Your task to perform on an android device: clear all cookies in the chrome app Image 0: 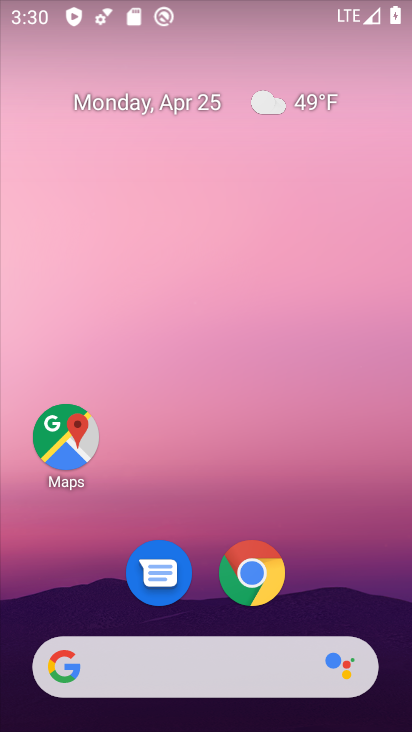
Step 0: click (256, 574)
Your task to perform on an android device: clear all cookies in the chrome app Image 1: 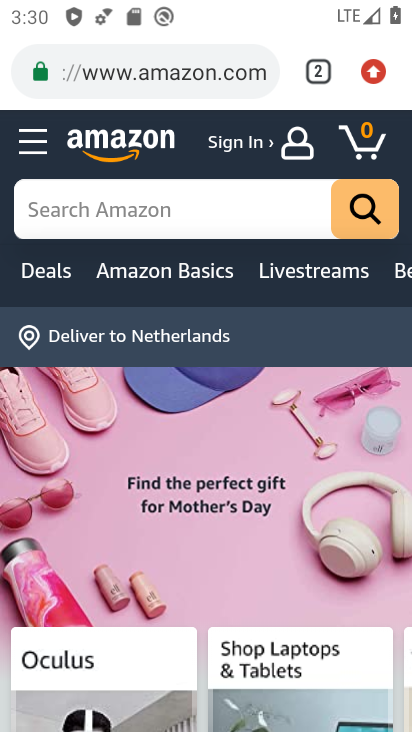
Step 1: click (381, 70)
Your task to perform on an android device: clear all cookies in the chrome app Image 2: 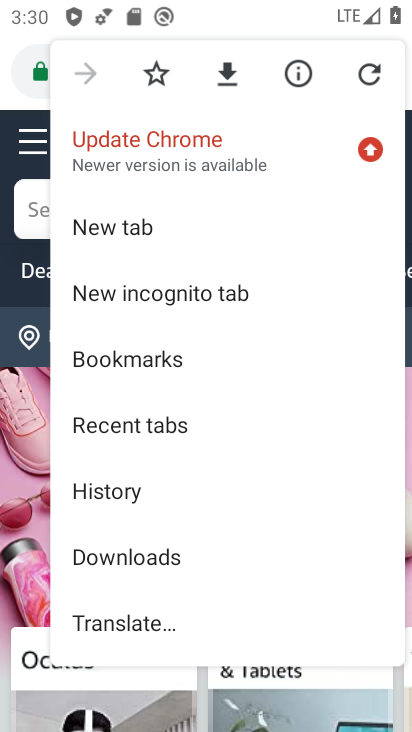
Step 2: drag from (227, 408) to (201, 298)
Your task to perform on an android device: clear all cookies in the chrome app Image 3: 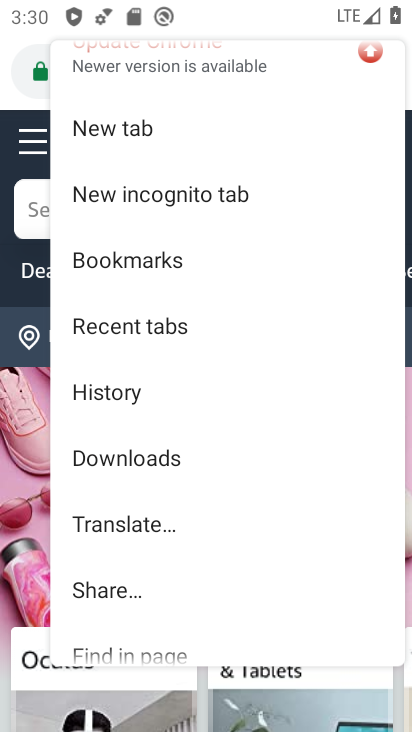
Step 3: drag from (164, 547) to (180, 230)
Your task to perform on an android device: clear all cookies in the chrome app Image 4: 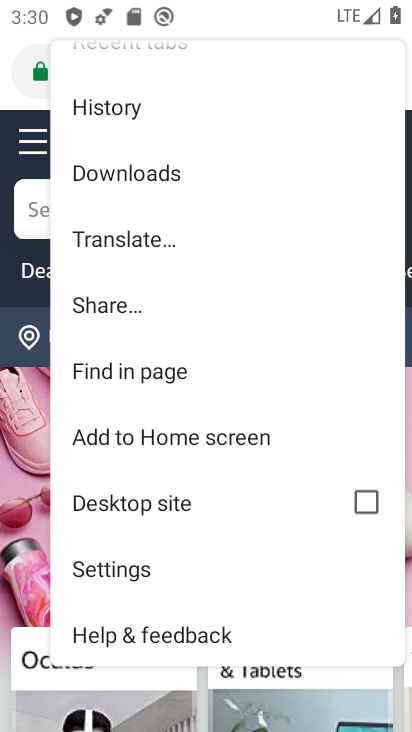
Step 4: click (161, 563)
Your task to perform on an android device: clear all cookies in the chrome app Image 5: 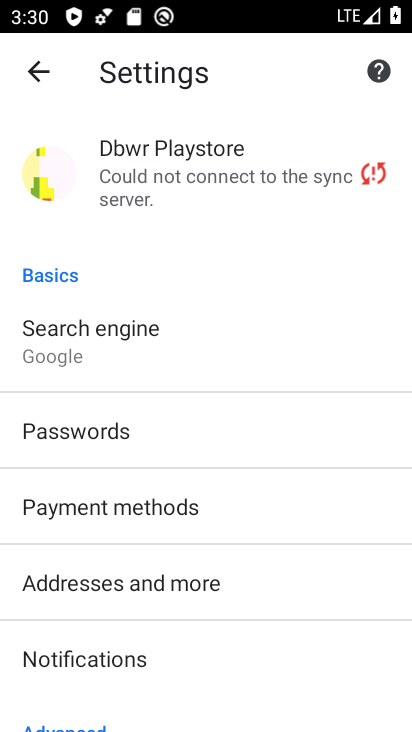
Step 5: drag from (211, 643) to (222, 199)
Your task to perform on an android device: clear all cookies in the chrome app Image 6: 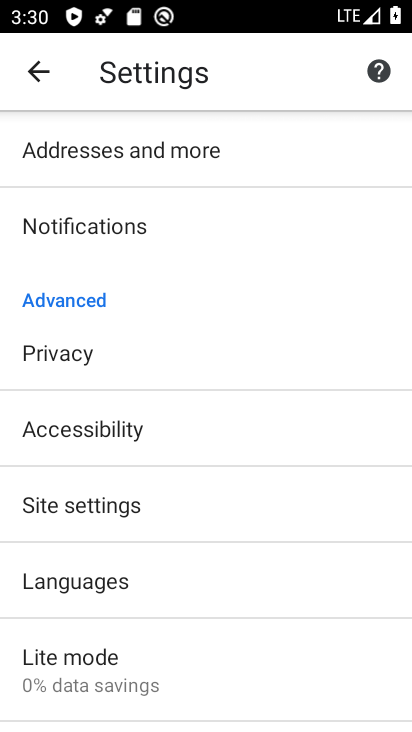
Step 6: drag from (234, 544) to (219, 329)
Your task to perform on an android device: clear all cookies in the chrome app Image 7: 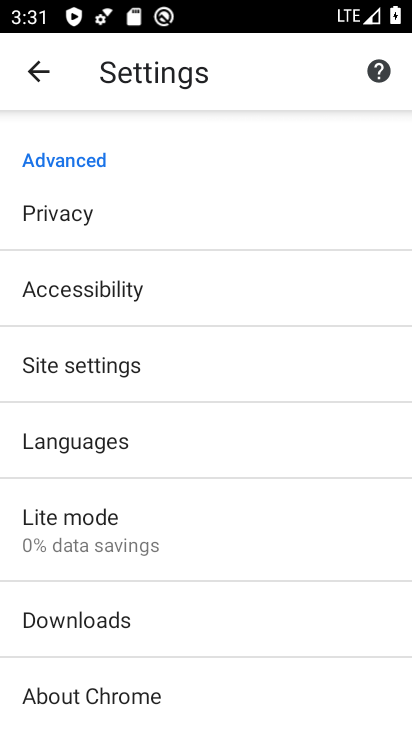
Step 7: drag from (221, 528) to (224, 218)
Your task to perform on an android device: clear all cookies in the chrome app Image 8: 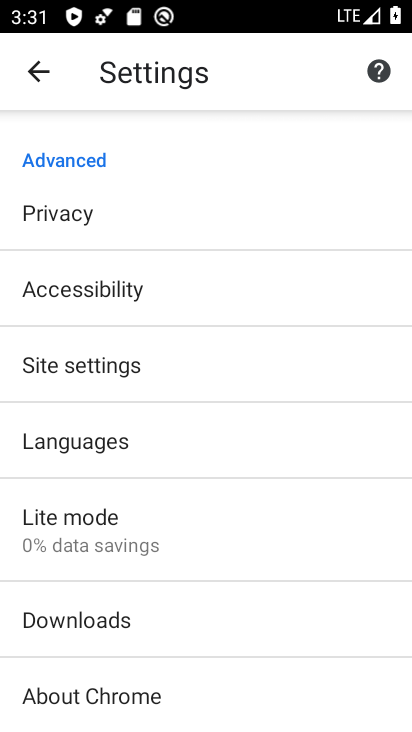
Step 8: click (102, 210)
Your task to perform on an android device: clear all cookies in the chrome app Image 9: 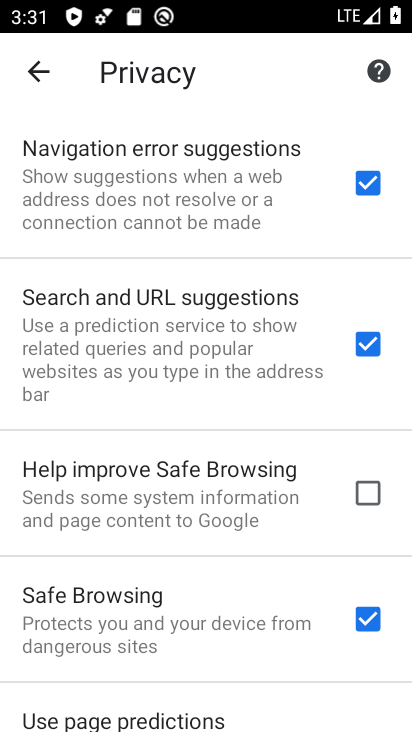
Step 9: drag from (244, 649) to (205, 238)
Your task to perform on an android device: clear all cookies in the chrome app Image 10: 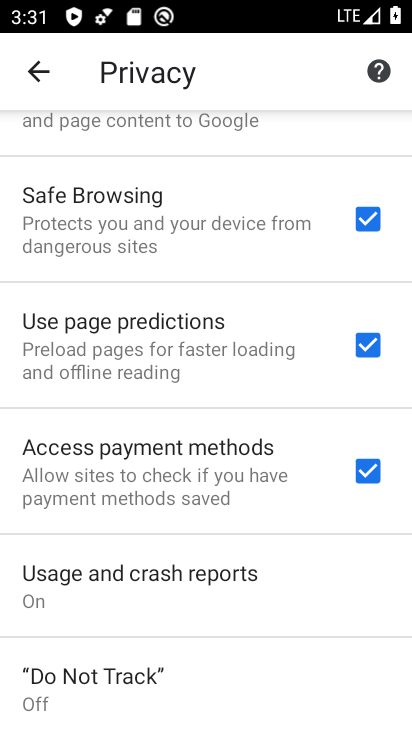
Step 10: drag from (224, 638) to (222, 203)
Your task to perform on an android device: clear all cookies in the chrome app Image 11: 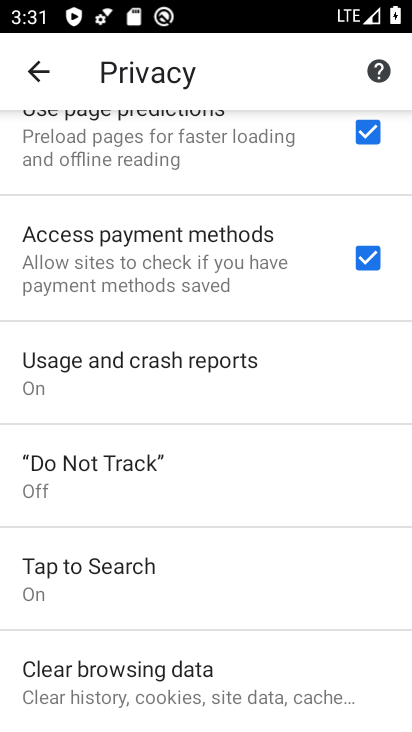
Step 11: drag from (204, 646) to (205, 97)
Your task to perform on an android device: clear all cookies in the chrome app Image 12: 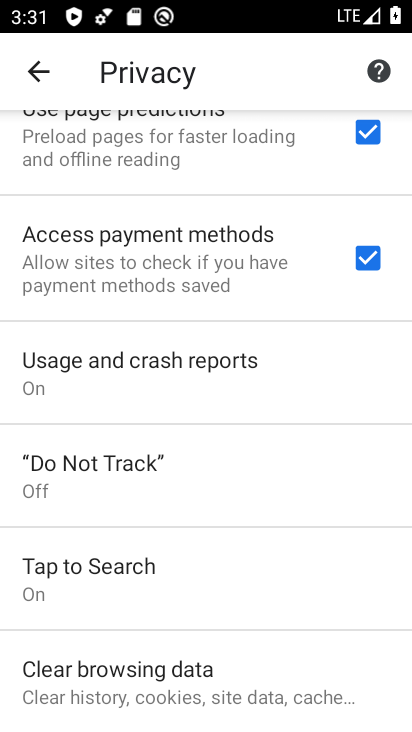
Step 12: drag from (164, 600) to (186, 243)
Your task to perform on an android device: clear all cookies in the chrome app Image 13: 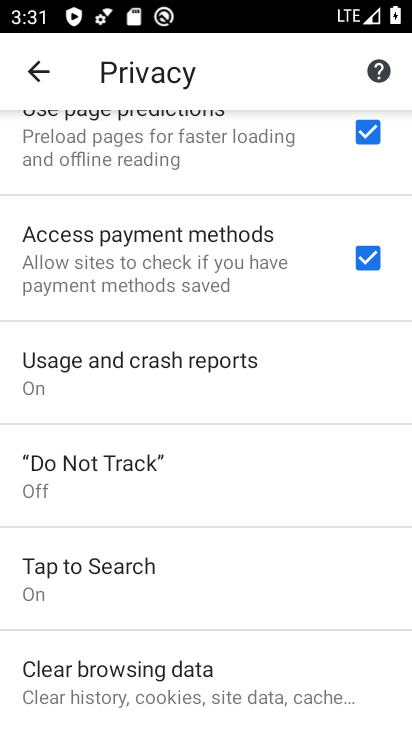
Step 13: drag from (185, 610) to (162, 299)
Your task to perform on an android device: clear all cookies in the chrome app Image 14: 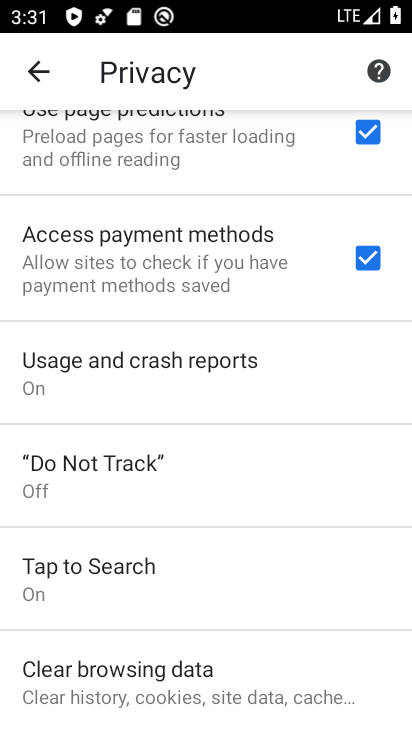
Step 14: click (147, 652)
Your task to perform on an android device: clear all cookies in the chrome app Image 15: 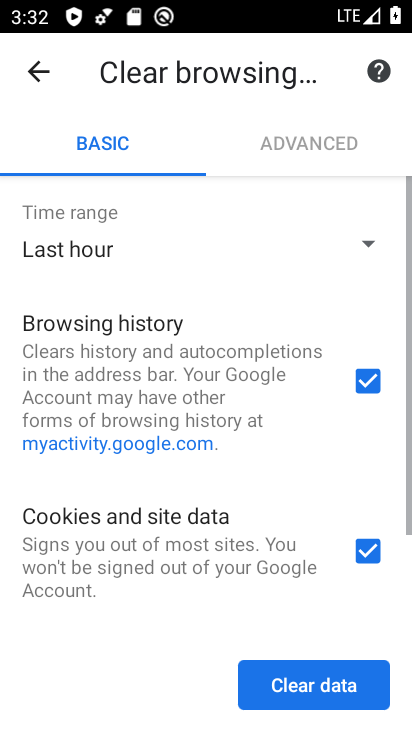
Step 15: click (369, 373)
Your task to perform on an android device: clear all cookies in the chrome app Image 16: 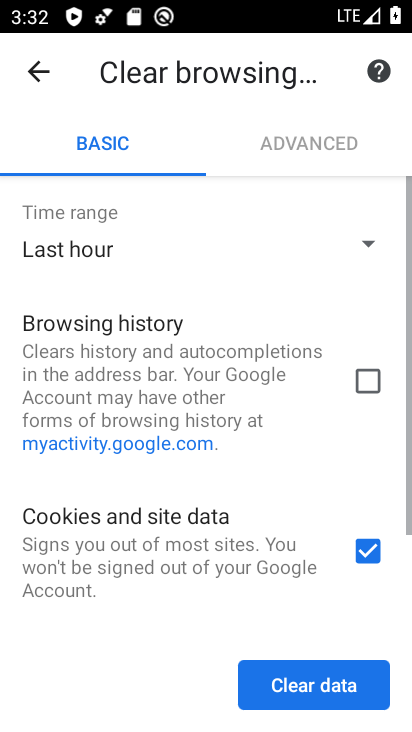
Step 16: click (353, 251)
Your task to perform on an android device: clear all cookies in the chrome app Image 17: 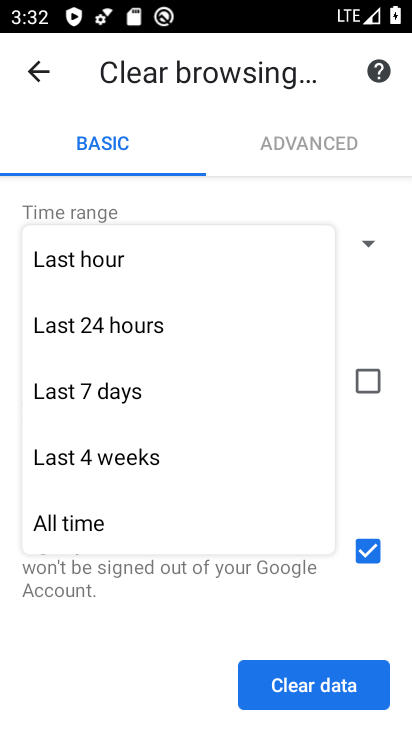
Step 17: click (80, 526)
Your task to perform on an android device: clear all cookies in the chrome app Image 18: 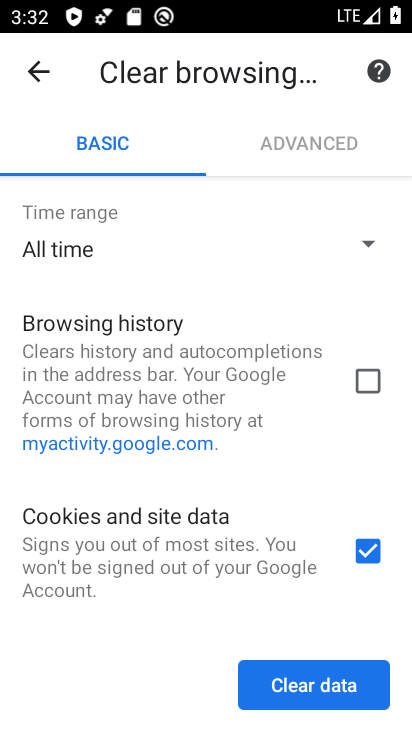
Step 18: click (338, 680)
Your task to perform on an android device: clear all cookies in the chrome app Image 19: 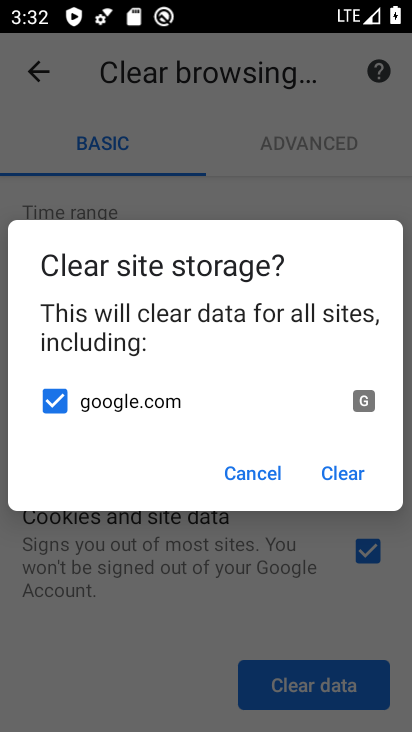
Step 19: click (340, 473)
Your task to perform on an android device: clear all cookies in the chrome app Image 20: 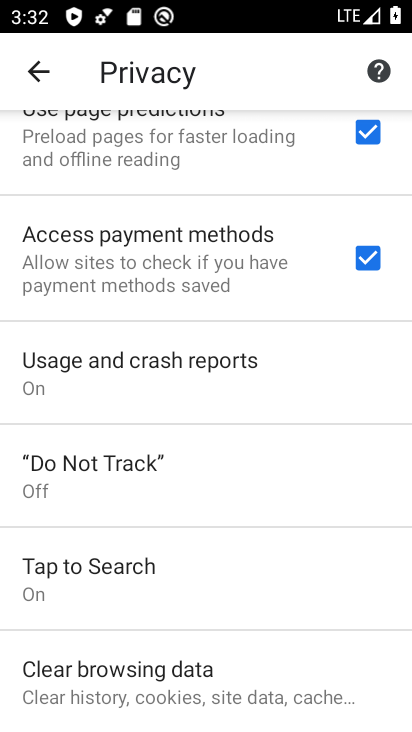
Step 20: task complete